Your task to perform on an android device: open wifi settings Image 0: 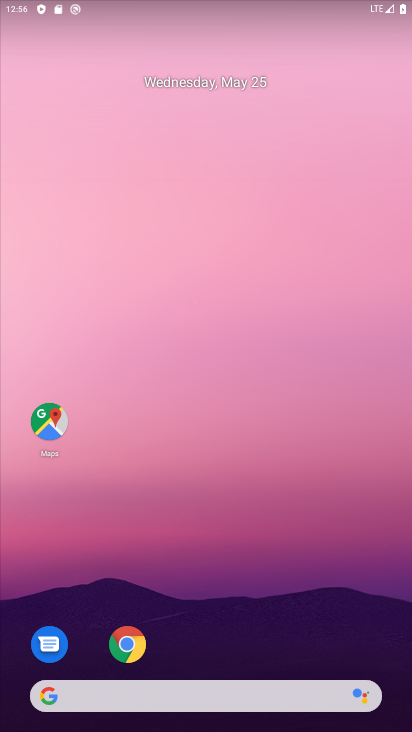
Step 0: drag from (214, 576) to (171, 75)
Your task to perform on an android device: open wifi settings Image 1: 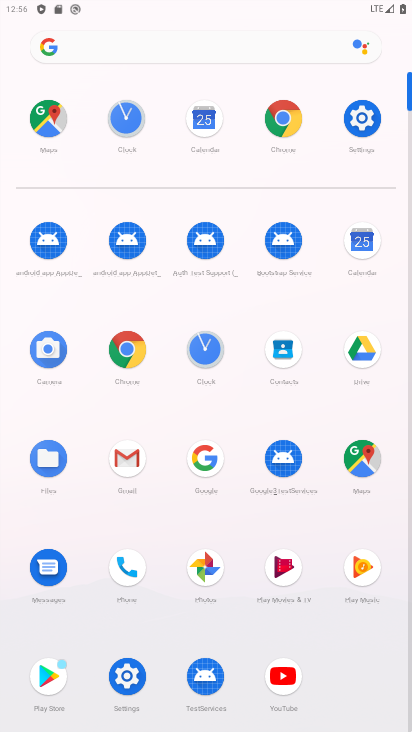
Step 1: click (356, 120)
Your task to perform on an android device: open wifi settings Image 2: 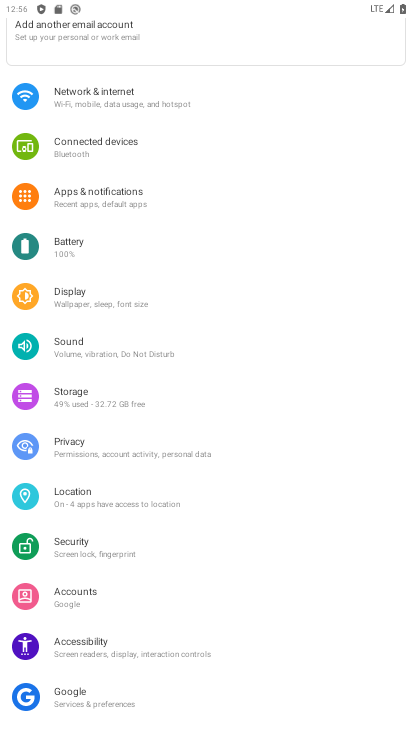
Step 2: click (88, 87)
Your task to perform on an android device: open wifi settings Image 3: 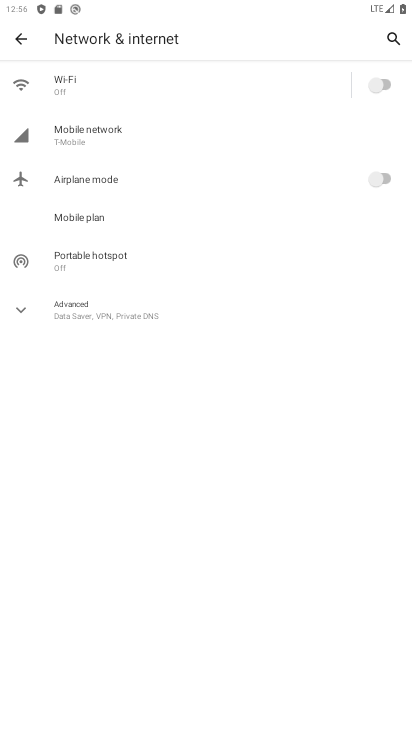
Step 3: click (105, 80)
Your task to perform on an android device: open wifi settings Image 4: 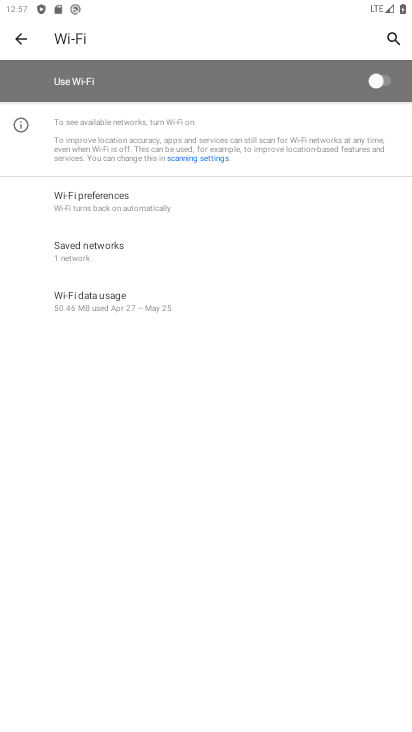
Step 4: task complete